Your task to perform on an android device: Open maps Image 0: 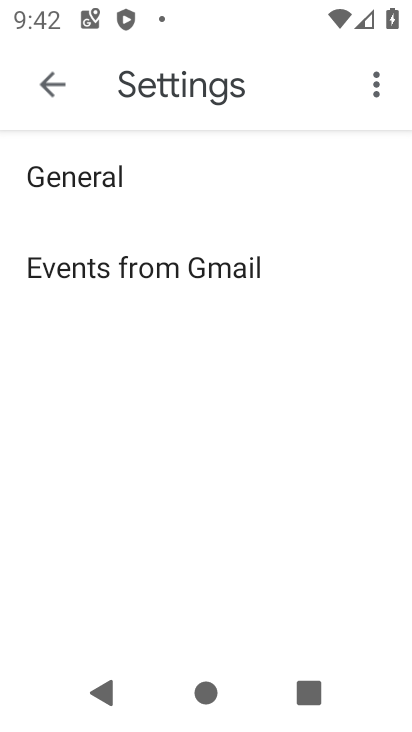
Step 0: press home button
Your task to perform on an android device: Open maps Image 1: 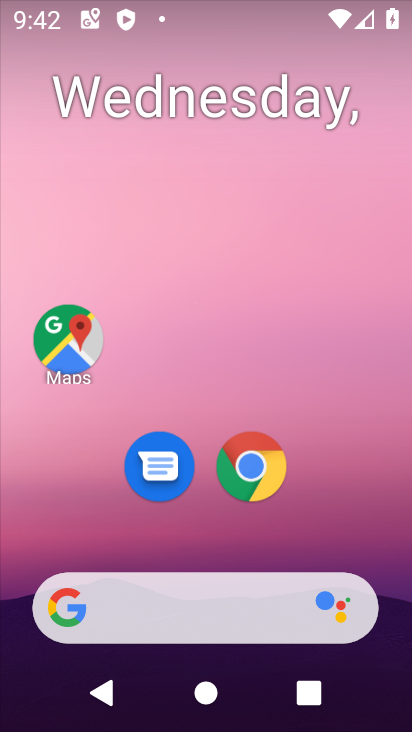
Step 1: click (41, 332)
Your task to perform on an android device: Open maps Image 2: 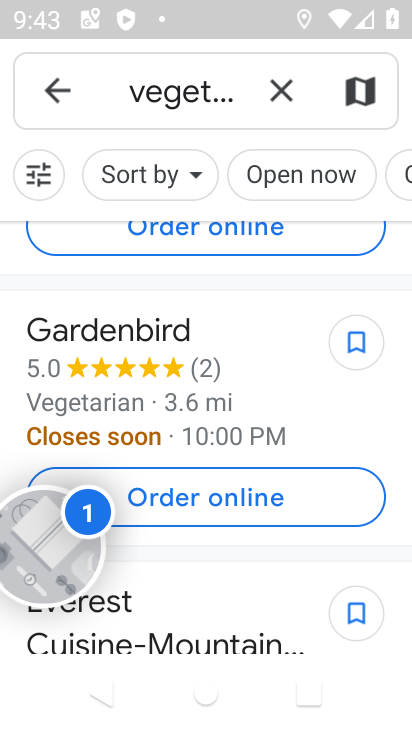
Step 2: task complete